Your task to perform on an android device: open the mobile data screen to see how much data has been used Image 0: 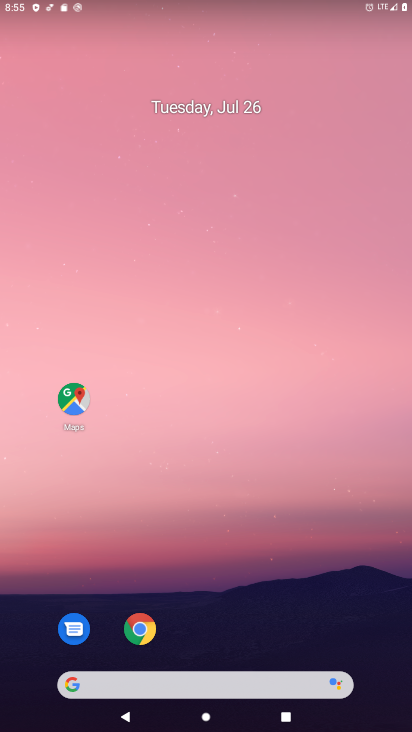
Step 0: drag from (206, 662) to (201, 7)
Your task to perform on an android device: open the mobile data screen to see how much data has been used Image 1: 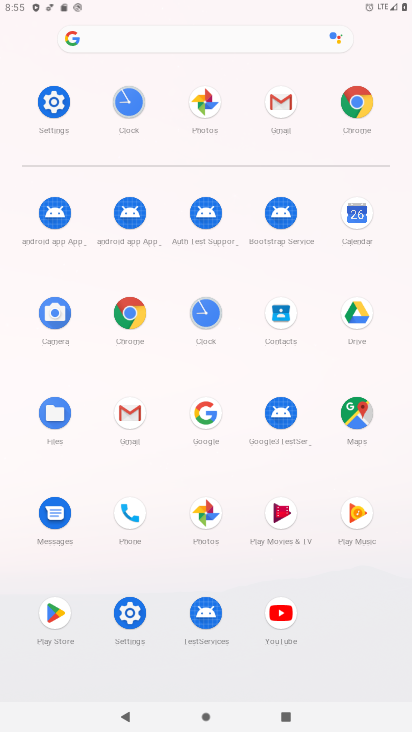
Step 1: click (119, 620)
Your task to perform on an android device: open the mobile data screen to see how much data has been used Image 2: 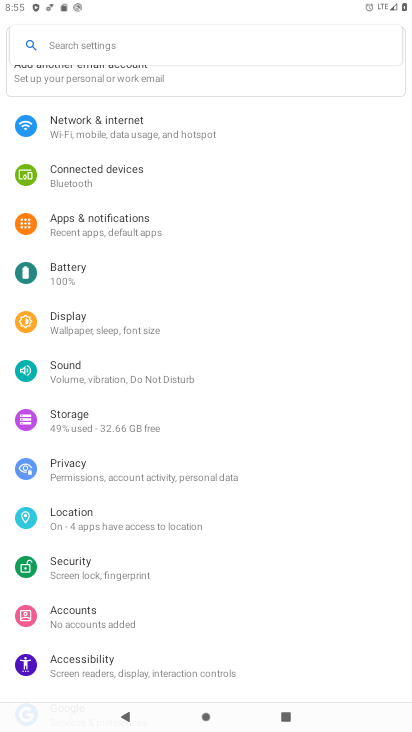
Step 2: click (95, 122)
Your task to perform on an android device: open the mobile data screen to see how much data has been used Image 3: 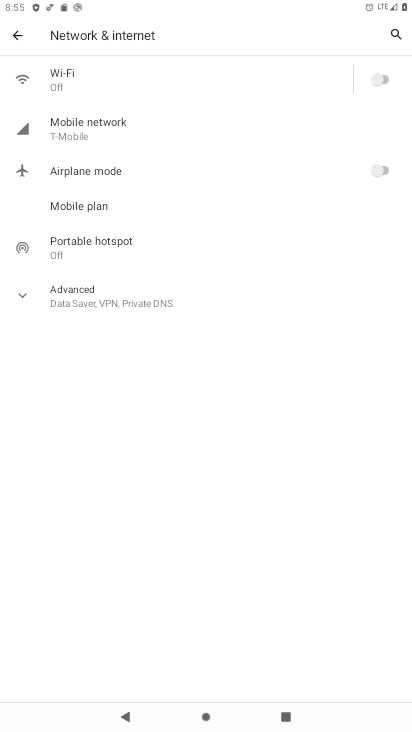
Step 3: click (90, 117)
Your task to perform on an android device: open the mobile data screen to see how much data has been used Image 4: 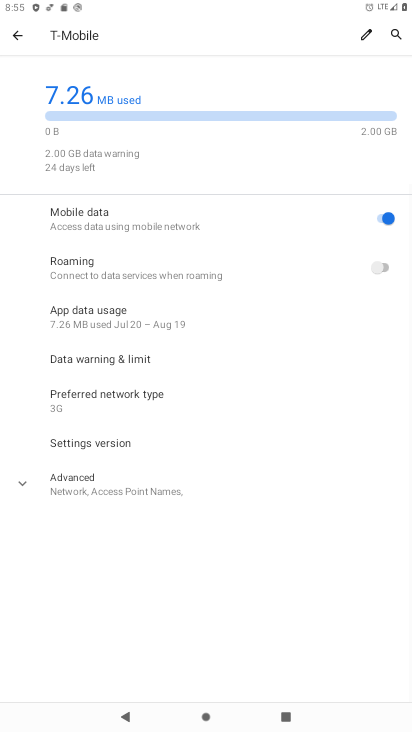
Step 4: task complete